Your task to perform on an android device: toggle notification dots Image 0: 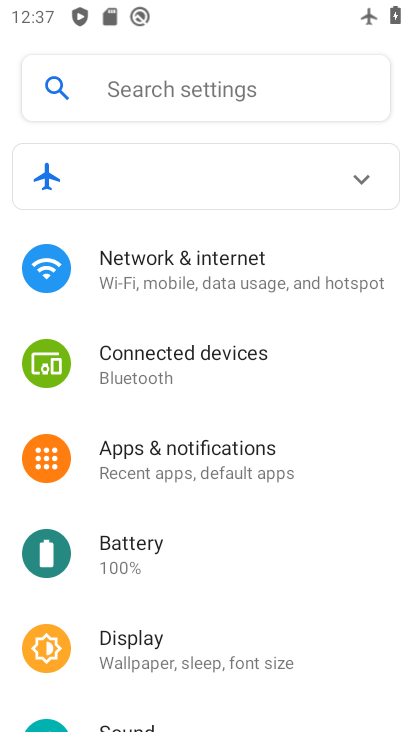
Step 0: click (192, 453)
Your task to perform on an android device: toggle notification dots Image 1: 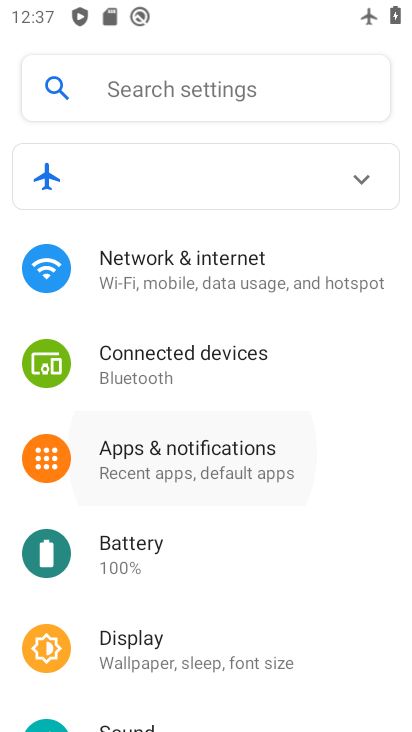
Step 1: click (194, 453)
Your task to perform on an android device: toggle notification dots Image 2: 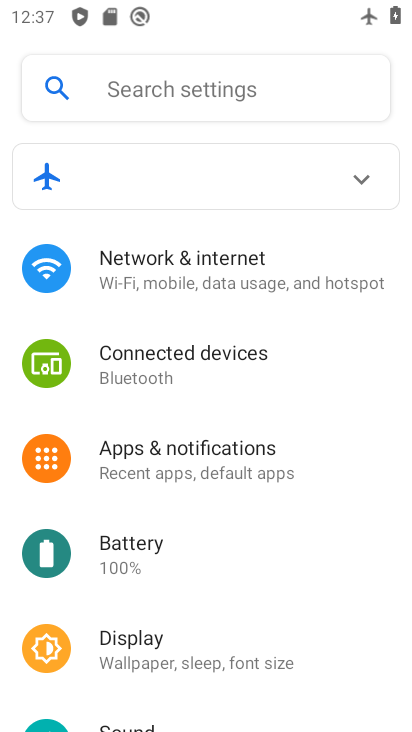
Step 2: click (194, 453)
Your task to perform on an android device: toggle notification dots Image 3: 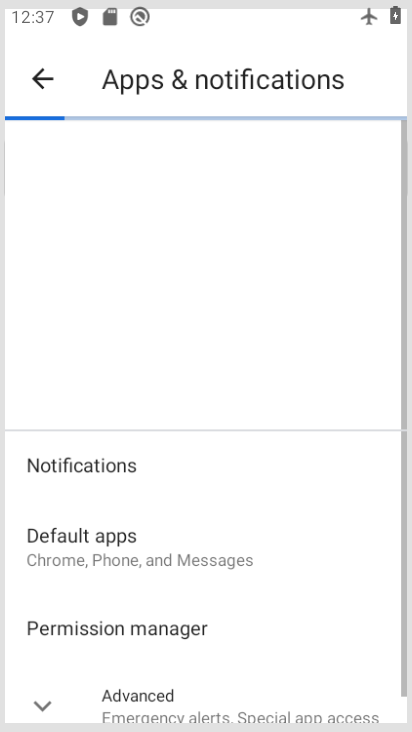
Step 3: click (194, 453)
Your task to perform on an android device: toggle notification dots Image 4: 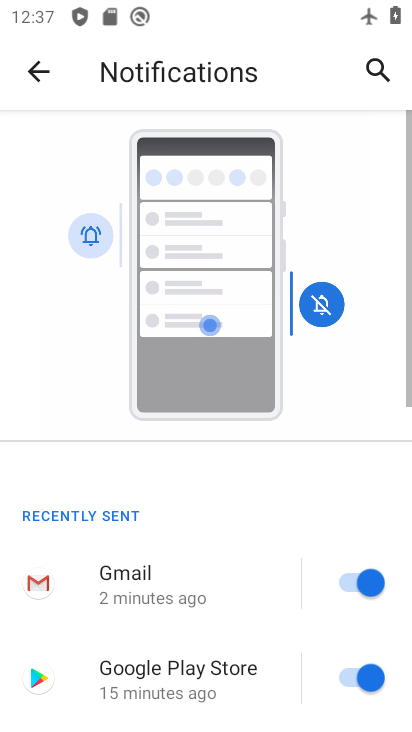
Step 4: drag from (172, 494) to (111, 70)
Your task to perform on an android device: toggle notification dots Image 5: 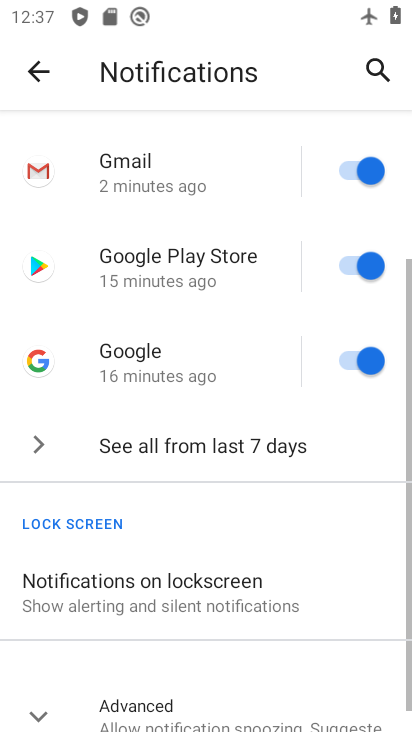
Step 5: drag from (236, 504) to (233, 193)
Your task to perform on an android device: toggle notification dots Image 6: 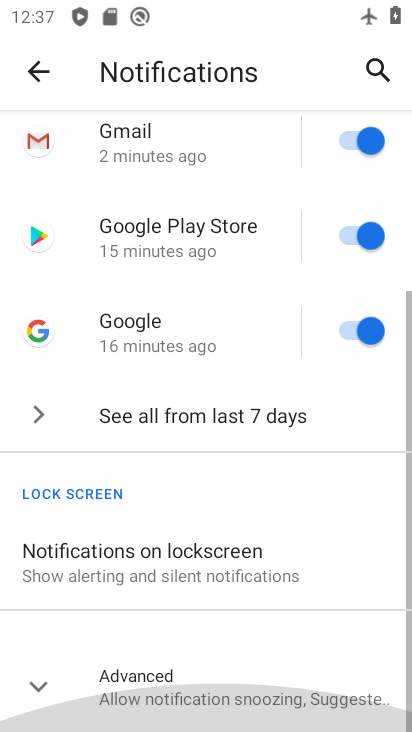
Step 6: drag from (242, 589) to (204, 113)
Your task to perform on an android device: toggle notification dots Image 7: 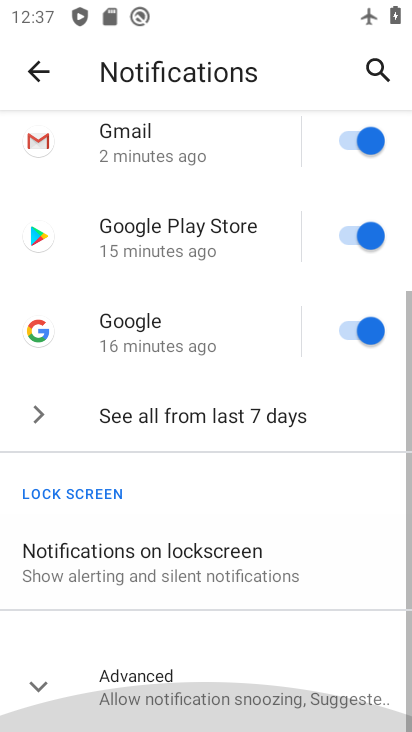
Step 7: drag from (163, 479) to (148, 149)
Your task to perform on an android device: toggle notification dots Image 8: 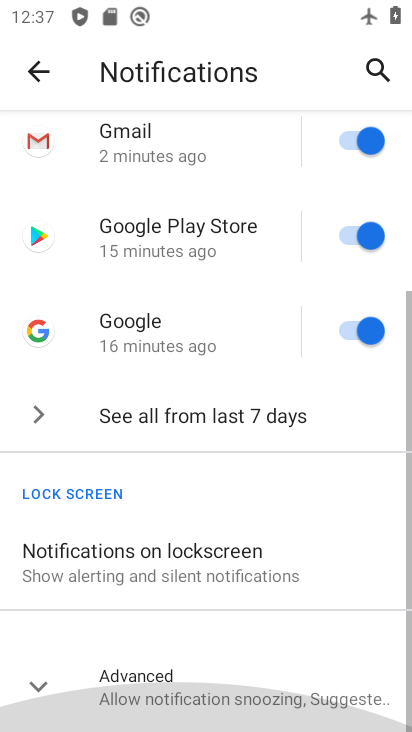
Step 8: drag from (210, 641) to (174, 110)
Your task to perform on an android device: toggle notification dots Image 9: 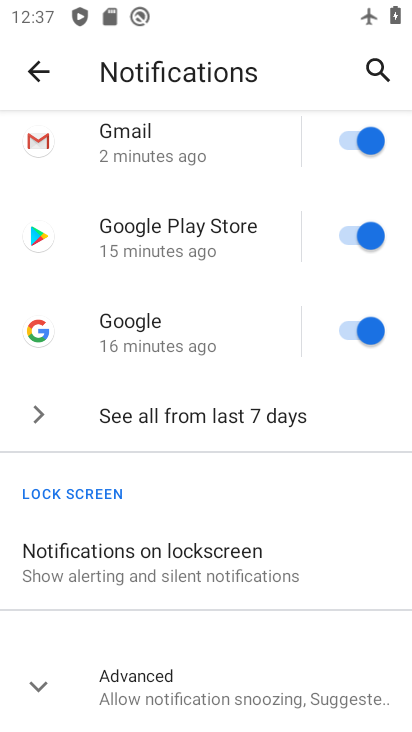
Step 9: click (129, 695)
Your task to perform on an android device: toggle notification dots Image 10: 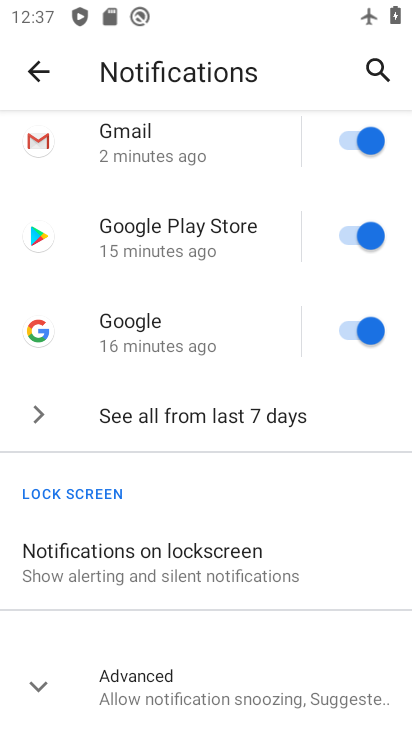
Step 10: click (130, 688)
Your task to perform on an android device: toggle notification dots Image 11: 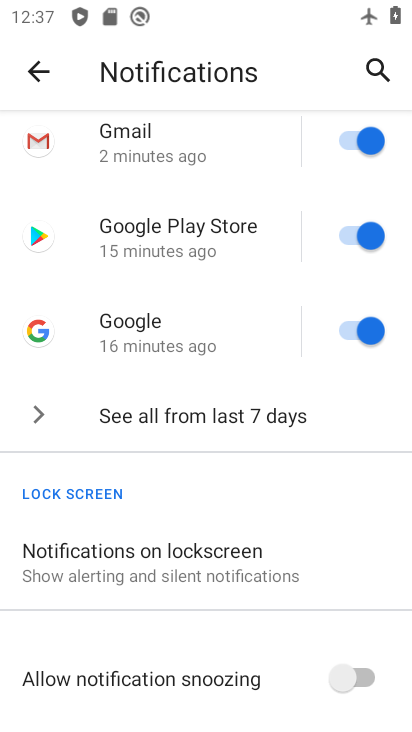
Step 11: drag from (180, 558) to (183, 215)
Your task to perform on an android device: toggle notification dots Image 12: 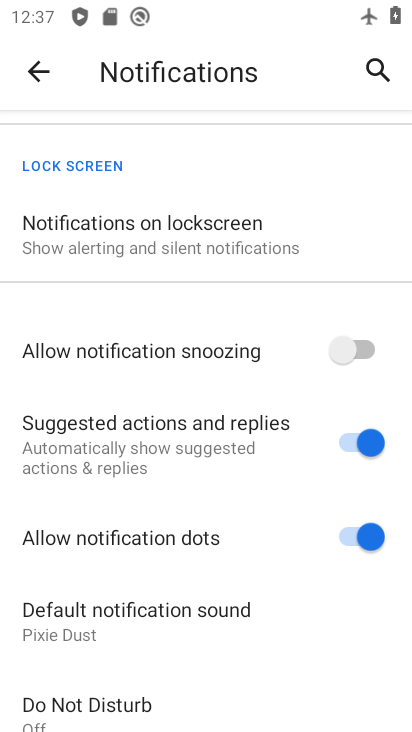
Step 12: drag from (172, 592) to (194, 146)
Your task to perform on an android device: toggle notification dots Image 13: 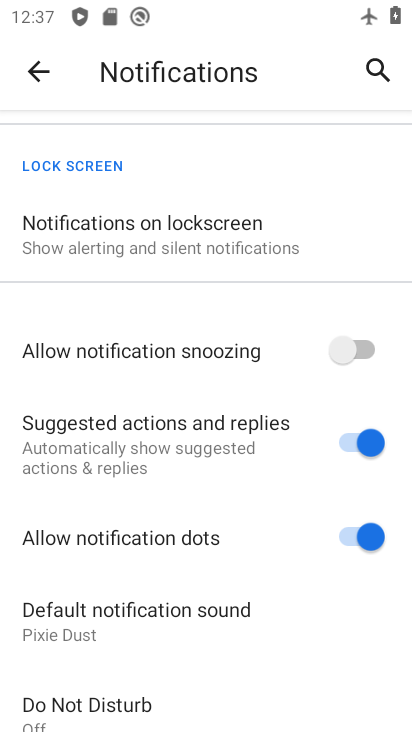
Step 13: click (358, 539)
Your task to perform on an android device: toggle notification dots Image 14: 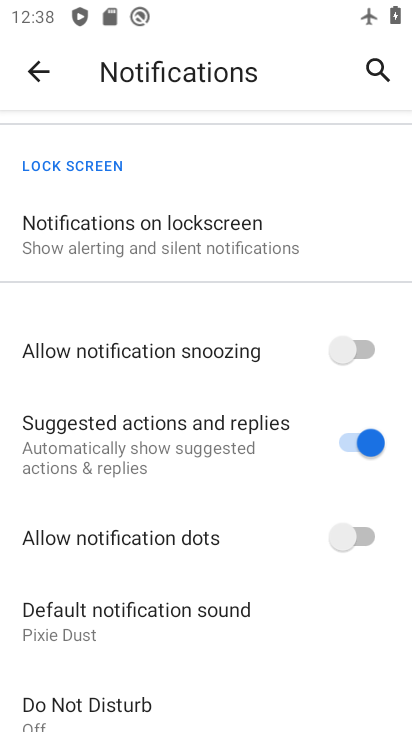
Step 14: task complete